Your task to perform on an android device: Go to Google maps Image 0: 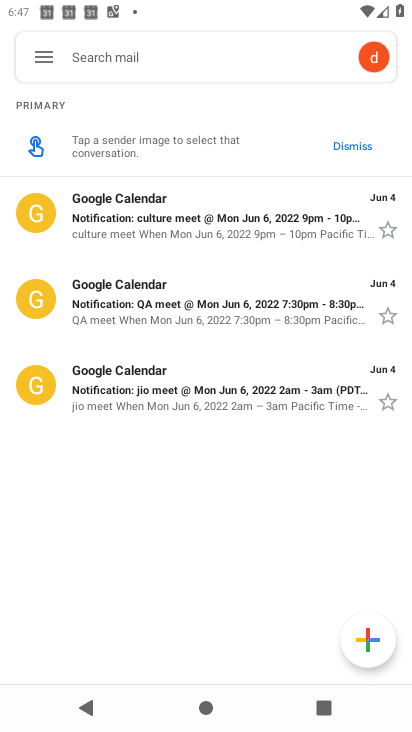
Step 0: press home button
Your task to perform on an android device: Go to Google maps Image 1: 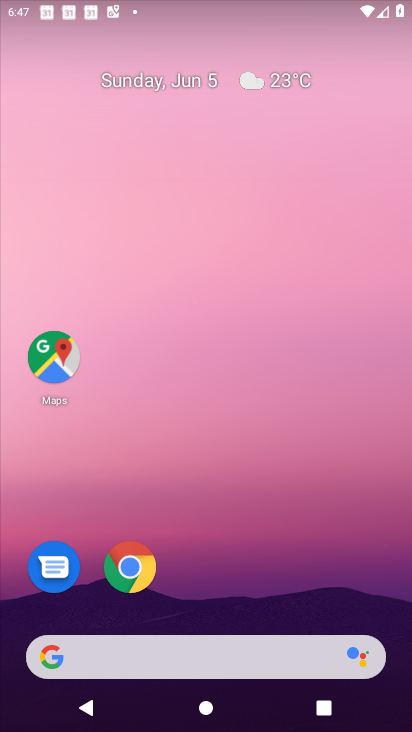
Step 1: drag from (384, 586) to (281, 6)
Your task to perform on an android device: Go to Google maps Image 2: 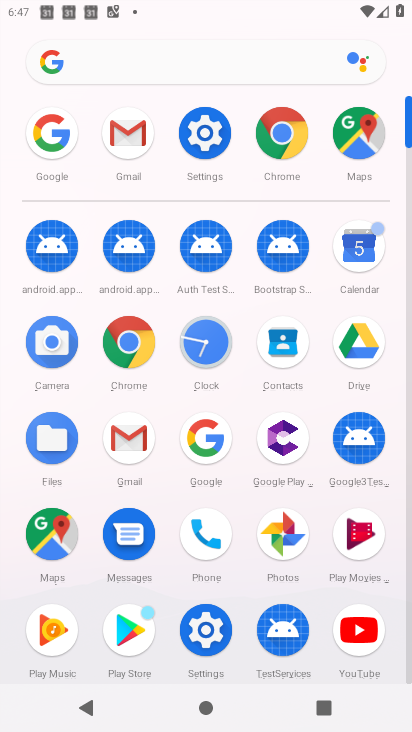
Step 2: click (42, 537)
Your task to perform on an android device: Go to Google maps Image 3: 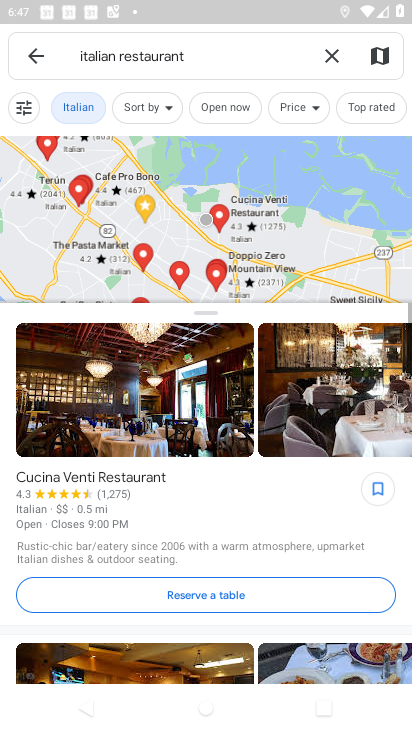
Step 3: click (333, 51)
Your task to perform on an android device: Go to Google maps Image 4: 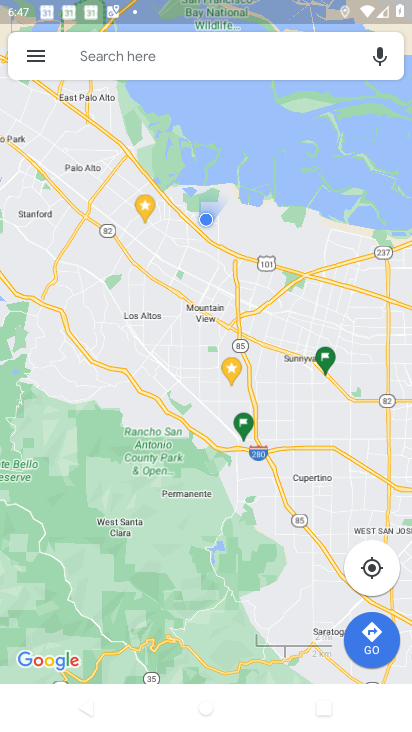
Step 4: task complete